Your task to perform on an android device: Set the phone to "Do not disturb". Image 0: 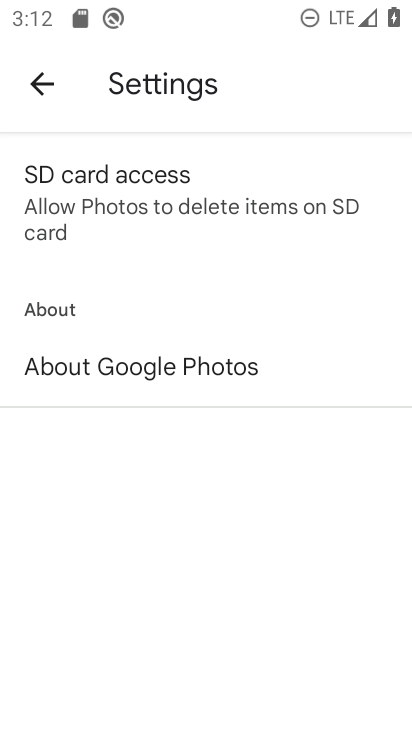
Step 0: press home button
Your task to perform on an android device: Set the phone to "Do not disturb". Image 1: 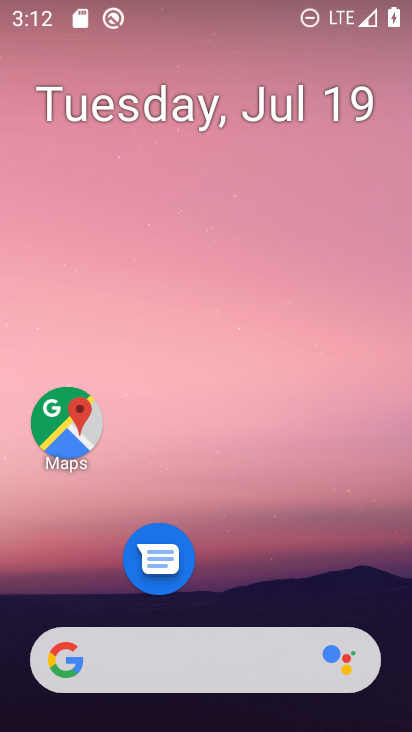
Step 1: task complete